Your task to perform on an android device: Open the web browser Image 0: 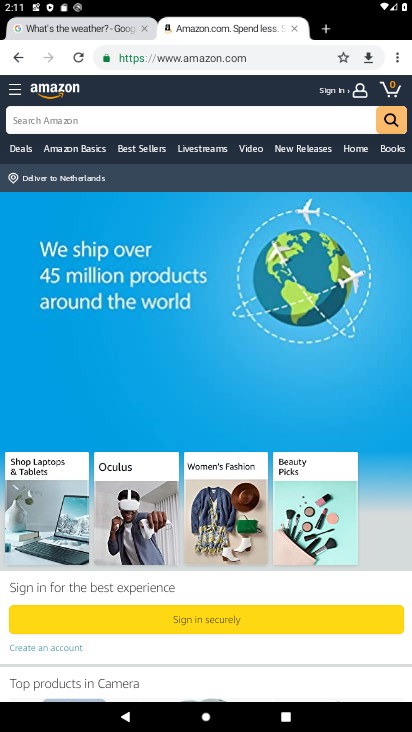
Step 0: press home button
Your task to perform on an android device: Open the web browser Image 1: 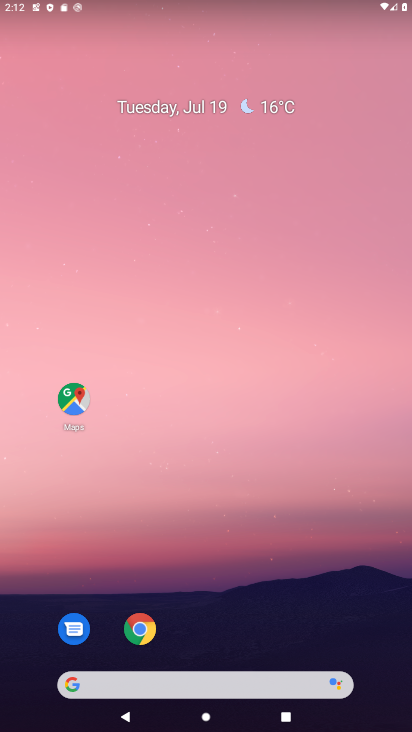
Step 1: drag from (185, 645) to (218, 184)
Your task to perform on an android device: Open the web browser Image 2: 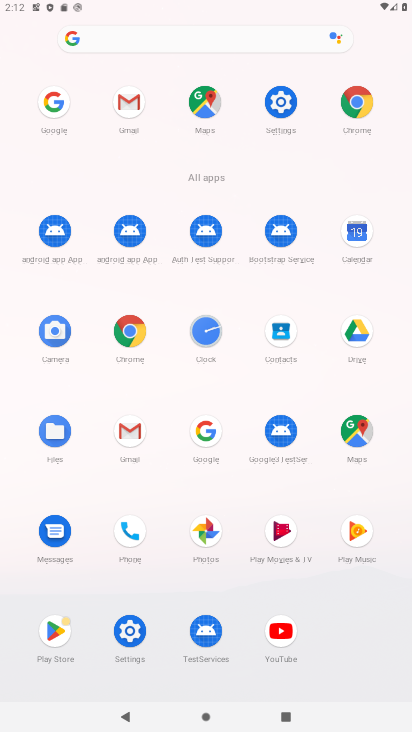
Step 2: click (198, 430)
Your task to perform on an android device: Open the web browser Image 3: 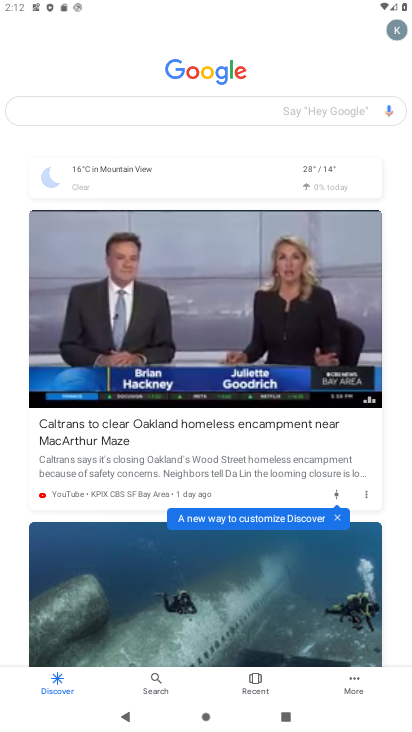
Step 3: task complete